Your task to perform on an android device: Open Wikipedia Image 0: 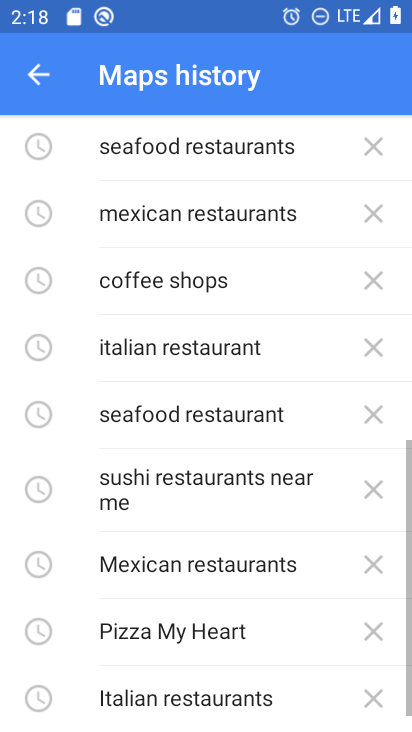
Step 0: drag from (278, 79) to (255, 2)
Your task to perform on an android device: Open Wikipedia Image 1: 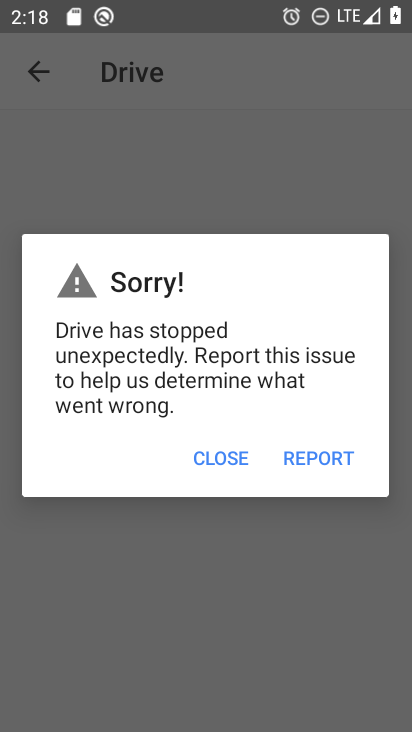
Step 1: press home button
Your task to perform on an android device: Open Wikipedia Image 2: 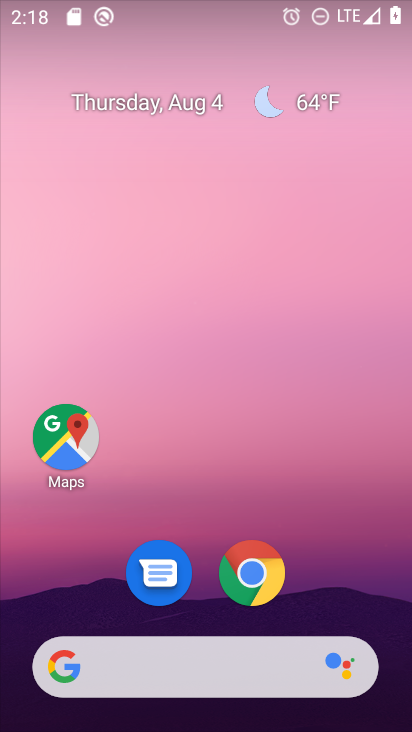
Step 2: drag from (328, 589) to (304, 141)
Your task to perform on an android device: Open Wikipedia Image 3: 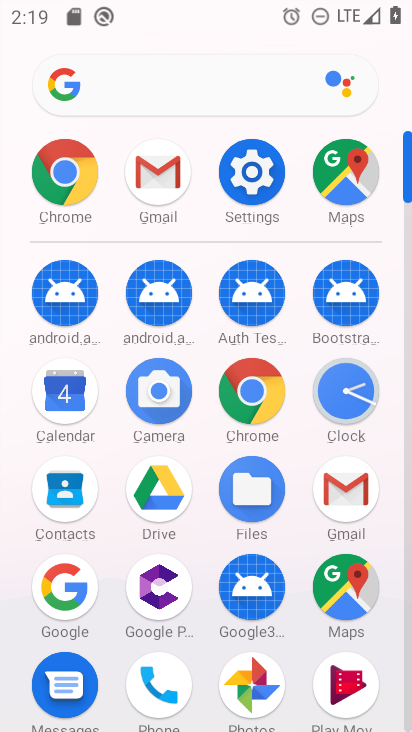
Step 3: click (250, 383)
Your task to perform on an android device: Open Wikipedia Image 4: 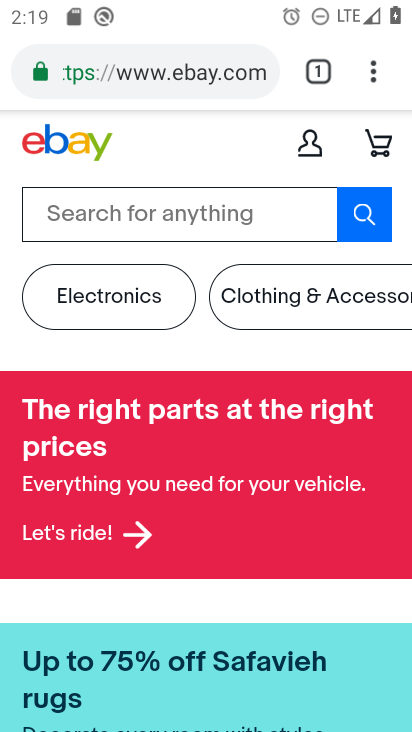
Step 4: click (253, 62)
Your task to perform on an android device: Open Wikipedia Image 5: 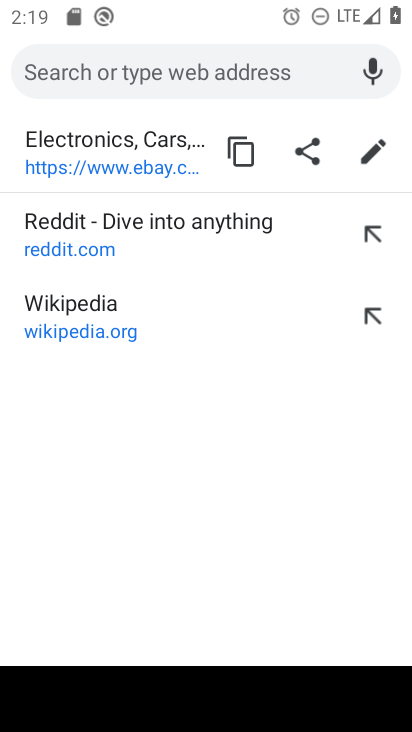
Step 5: click (93, 328)
Your task to perform on an android device: Open Wikipedia Image 6: 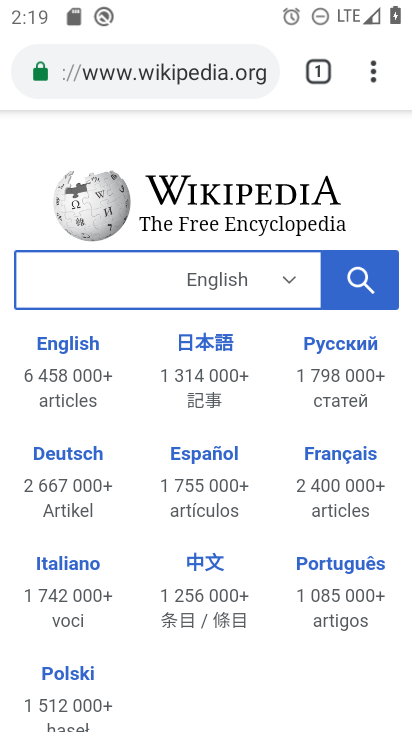
Step 6: task complete